Your task to perform on an android device: turn on bluetooth scan Image 0: 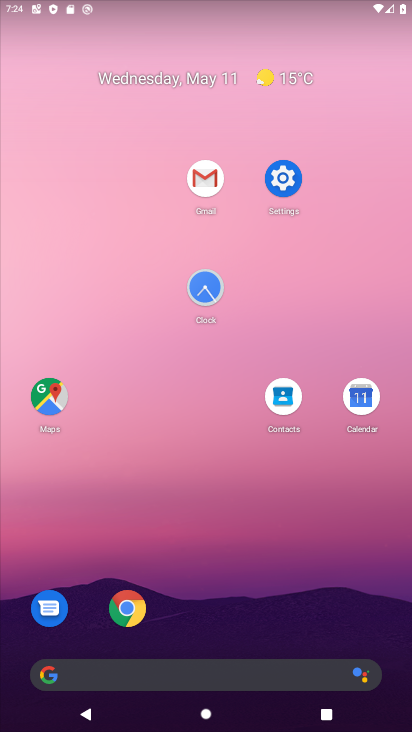
Step 0: drag from (225, 583) to (255, 74)
Your task to perform on an android device: turn on bluetooth scan Image 1: 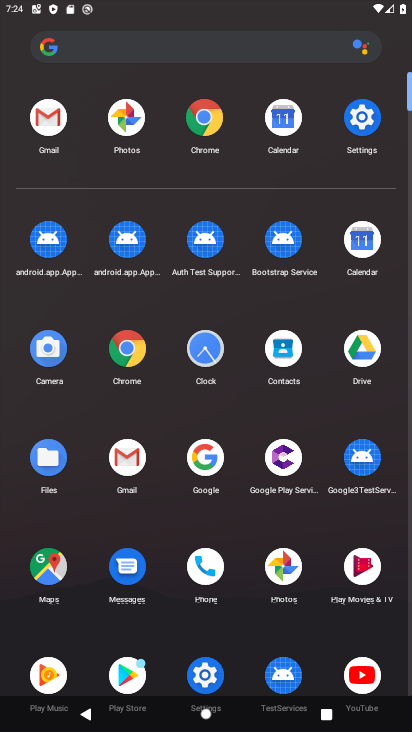
Step 1: click (362, 142)
Your task to perform on an android device: turn on bluetooth scan Image 2: 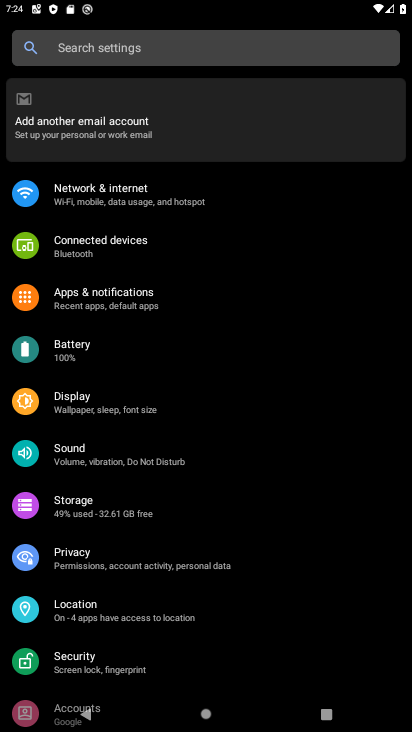
Step 2: click (189, 574)
Your task to perform on an android device: turn on bluetooth scan Image 3: 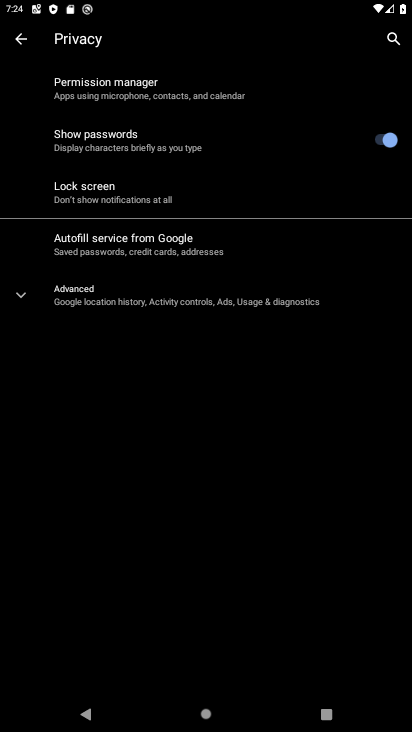
Step 3: click (32, 44)
Your task to perform on an android device: turn on bluetooth scan Image 4: 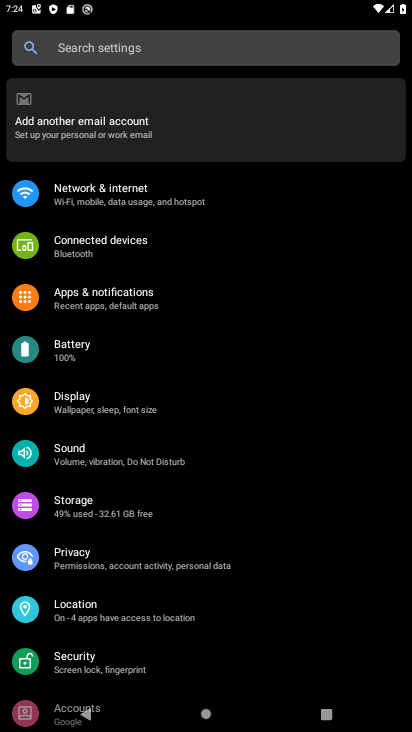
Step 4: click (124, 627)
Your task to perform on an android device: turn on bluetooth scan Image 5: 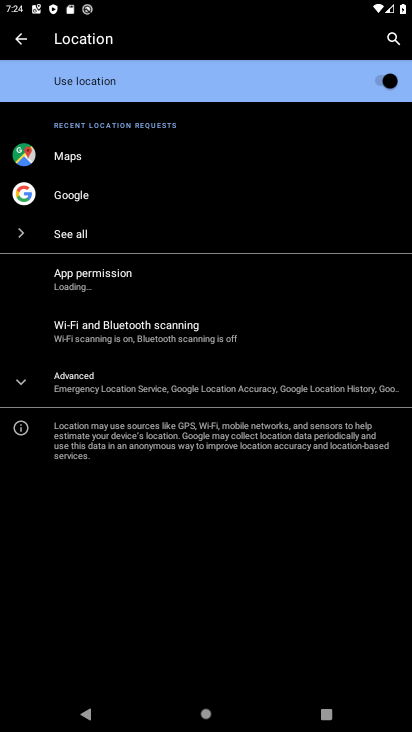
Step 5: click (184, 377)
Your task to perform on an android device: turn on bluetooth scan Image 6: 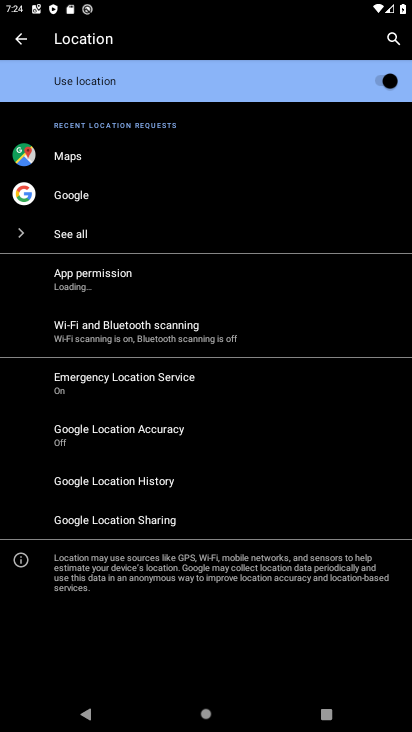
Step 6: click (201, 344)
Your task to perform on an android device: turn on bluetooth scan Image 7: 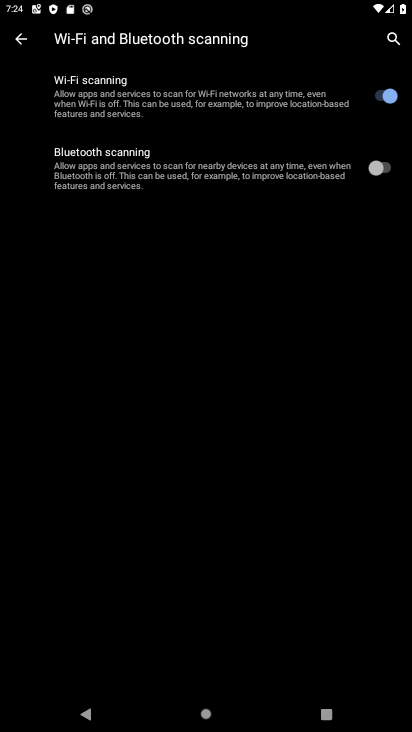
Step 7: click (385, 182)
Your task to perform on an android device: turn on bluetooth scan Image 8: 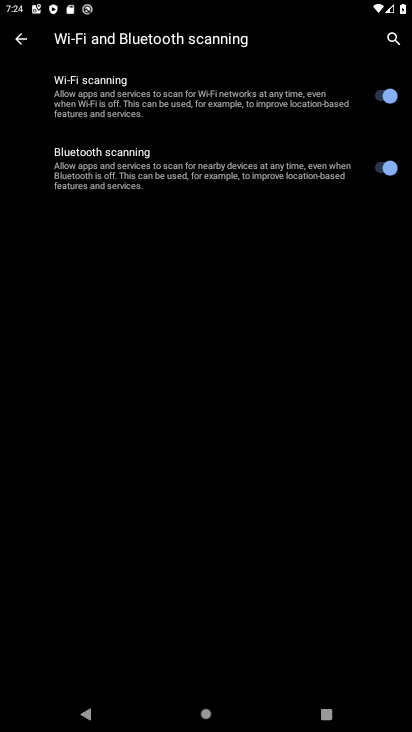
Step 8: task complete